Your task to perform on an android device: Open notification settings Image 0: 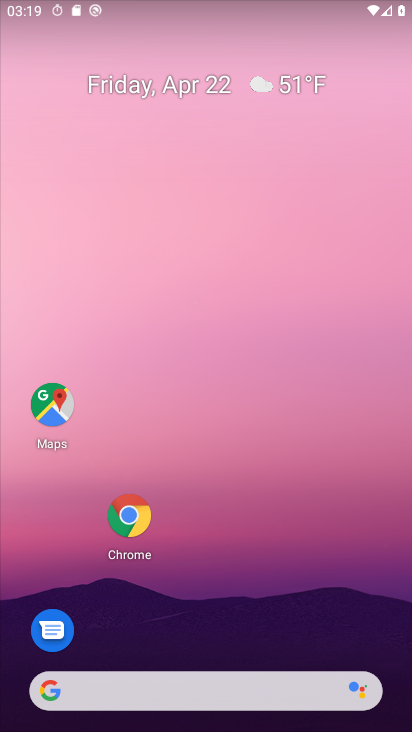
Step 0: drag from (375, 638) to (348, 314)
Your task to perform on an android device: Open notification settings Image 1: 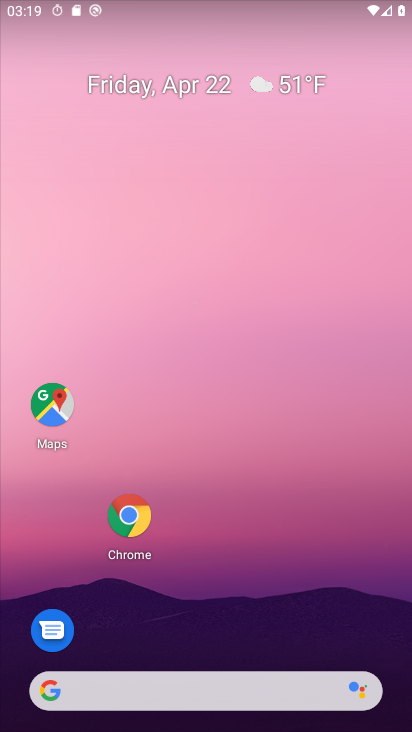
Step 1: drag from (378, 609) to (365, 94)
Your task to perform on an android device: Open notification settings Image 2: 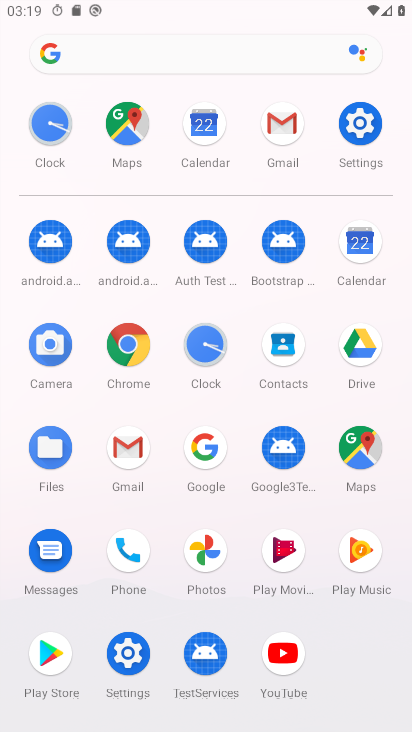
Step 2: click (359, 129)
Your task to perform on an android device: Open notification settings Image 3: 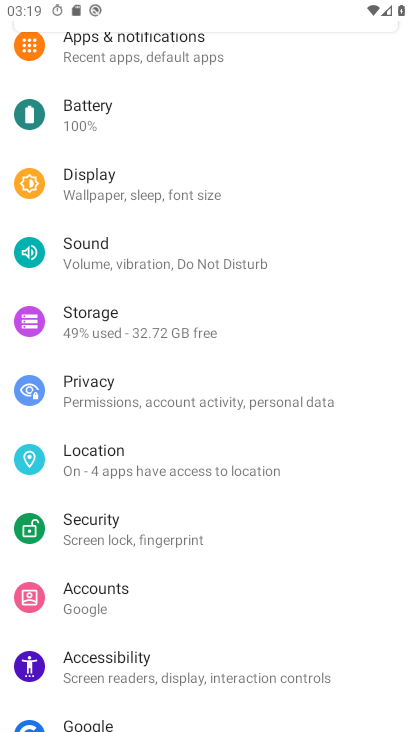
Step 3: drag from (351, 681) to (354, 285)
Your task to perform on an android device: Open notification settings Image 4: 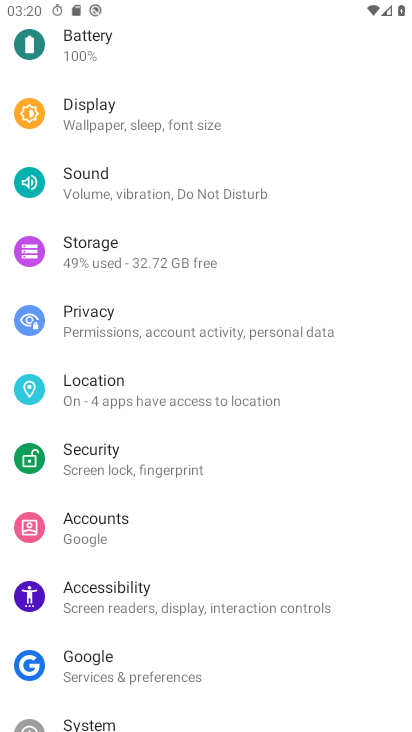
Step 4: drag from (326, 213) to (333, 407)
Your task to perform on an android device: Open notification settings Image 5: 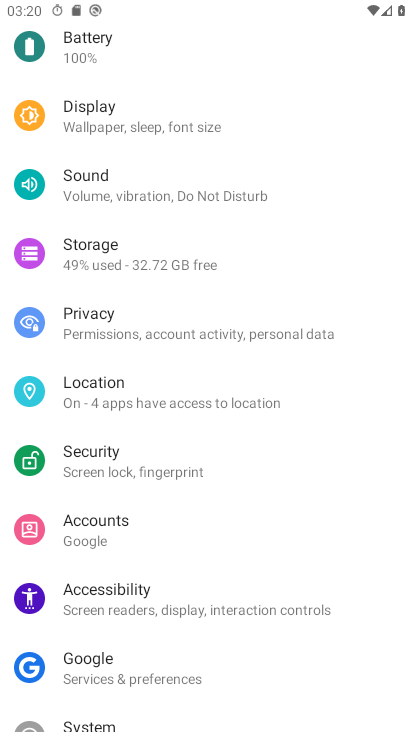
Step 5: drag from (292, 104) to (307, 512)
Your task to perform on an android device: Open notification settings Image 6: 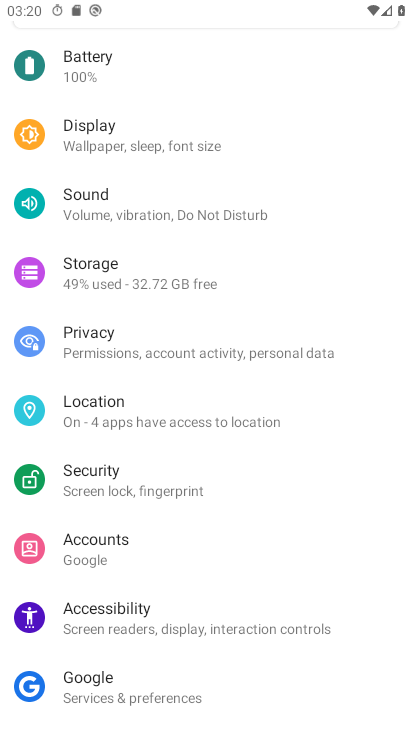
Step 6: drag from (308, 395) to (316, 537)
Your task to perform on an android device: Open notification settings Image 7: 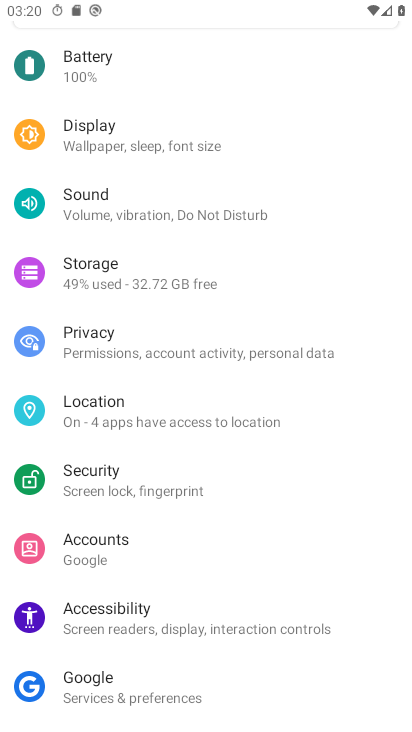
Step 7: drag from (301, 158) to (309, 487)
Your task to perform on an android device: Open notification settings Image 8: 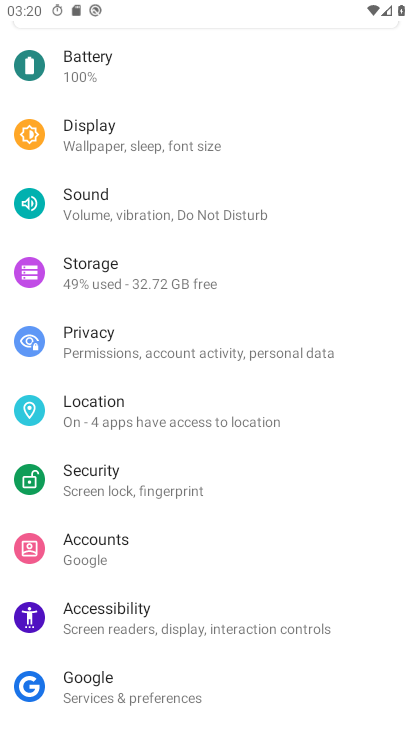
Step 8: drag from (307, 150) to (299, 562)
Your task to perform on an android device: Open notification settings Image 9: 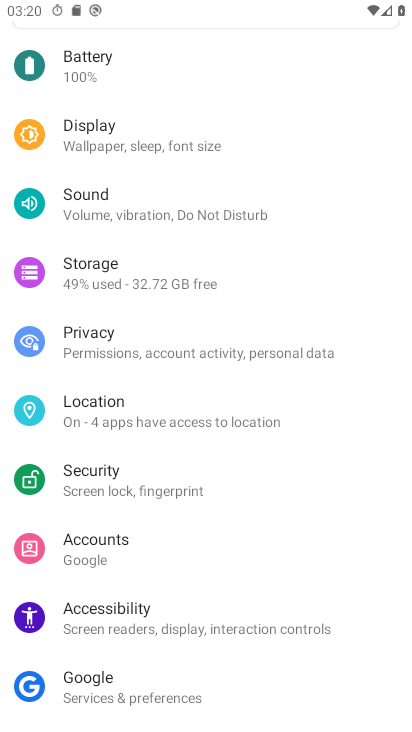
Step 9: click (343, 584)
Your task to perform on an android device: Open notification settings Image 10: 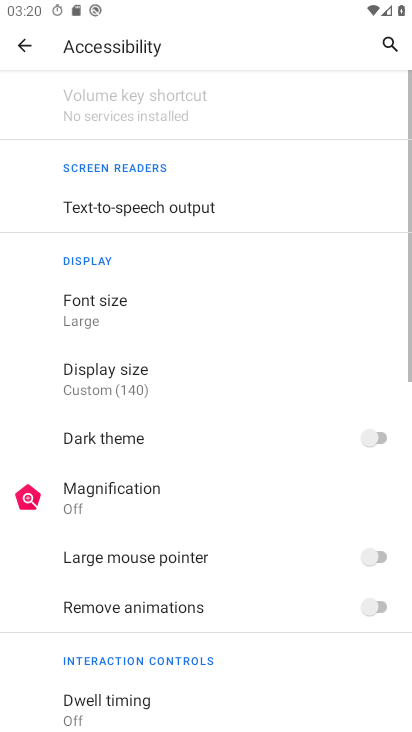
Step 10: drag from (299, 46) to (314, 335)
Your task to perform on an android device: Open notification settings Image 11: 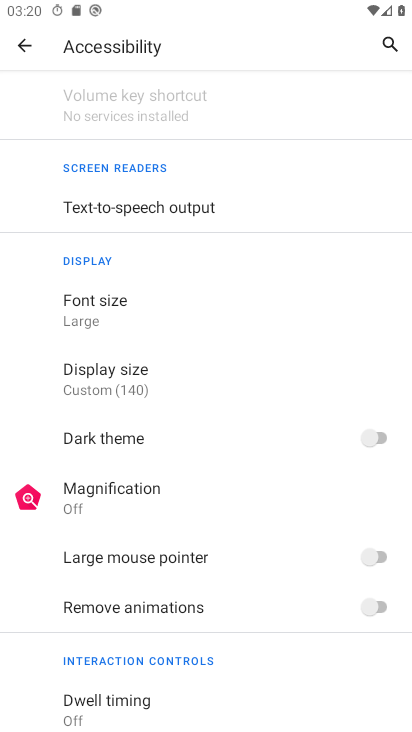
Step 11: click (14, 47)
Your task to perform on an android device: Open notification settings Image 12: 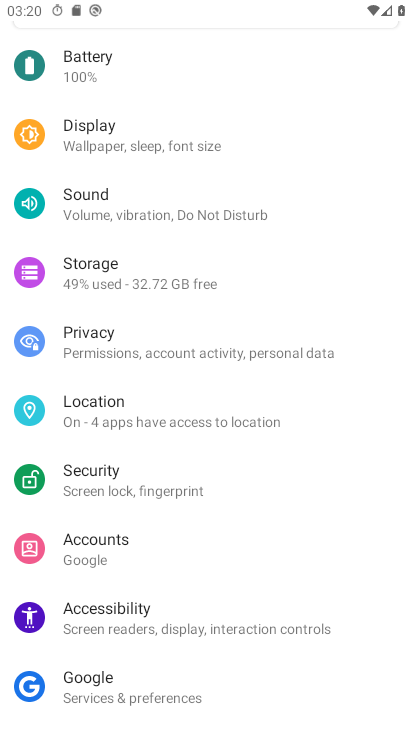
Step 12: drag from (327, 81) to (362, 465)
Your task to perform on an android device: Open notification settings Image 13: 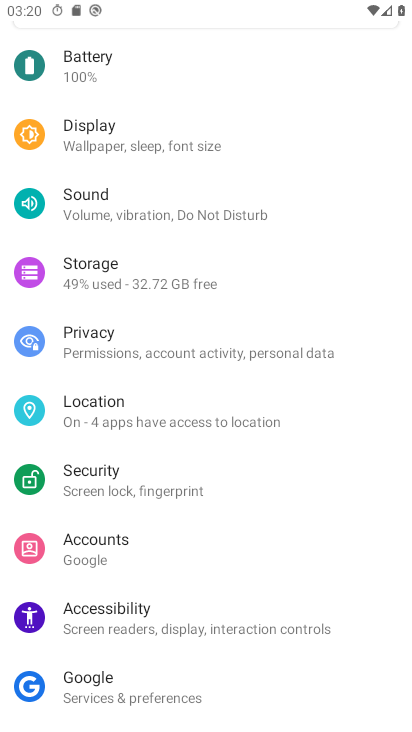
Step 13: drag from (389, 298) to (377, 558)
Your task to perform on an android device: Open notification settings Image 14: 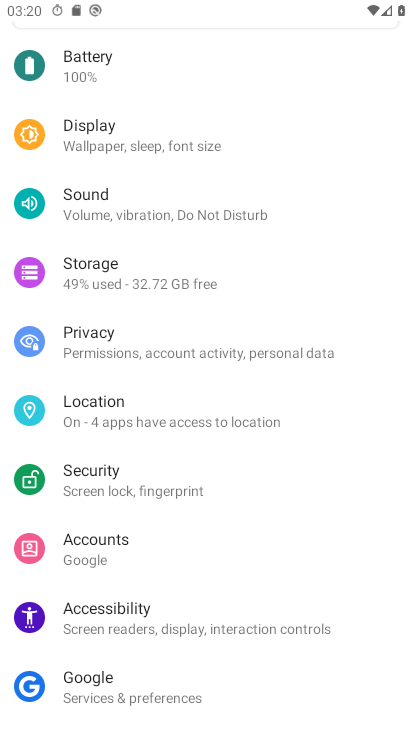
Step 14: drag from (293, 88) to (311, 205)
Your task to perform on an android device: Open notification settings Image 15: 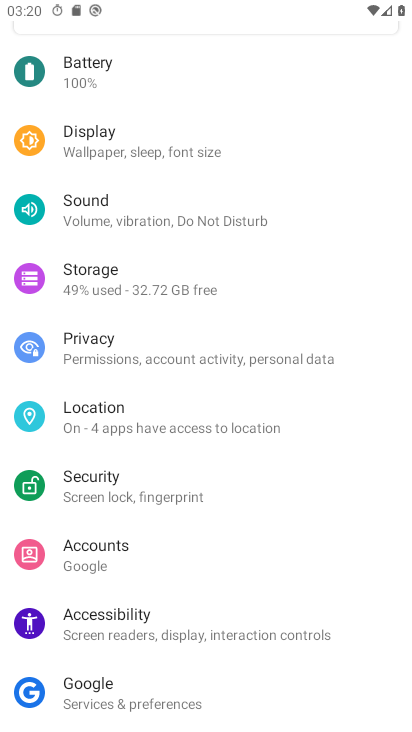
Step 15: drag from (317, 132) to (348, 497)
Your task to perform on an android device: Open notification settings Image 16: 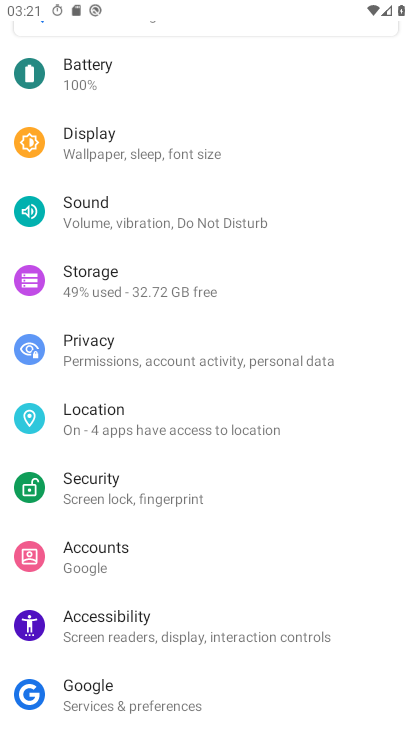
Step 16: click (250, 511)
Your task to perform on an android device: Open notification settings Image 17: 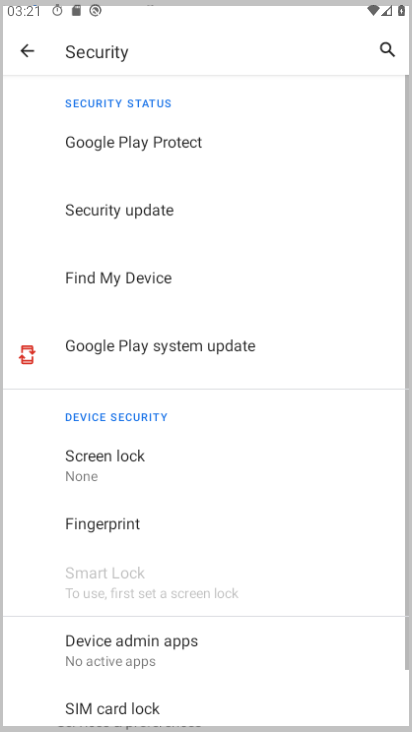
Step 17: drag from (307, 76) to (321, 474)
Your task to perform on an android device: Open notification settings Image 18: 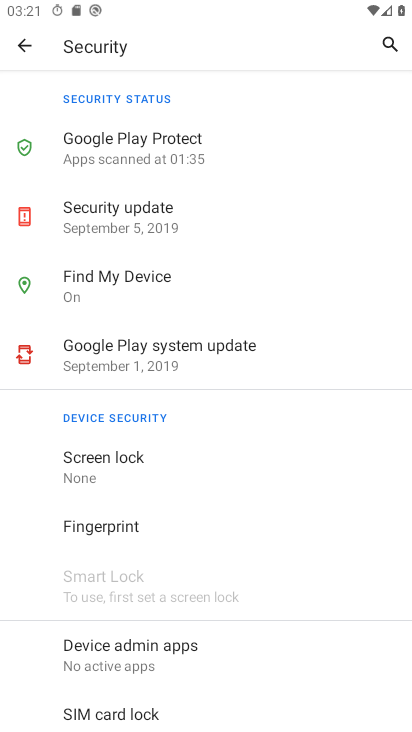
Step 18: click (17, 46)
Your task to perform on an android device: Open notification settings Image 19: 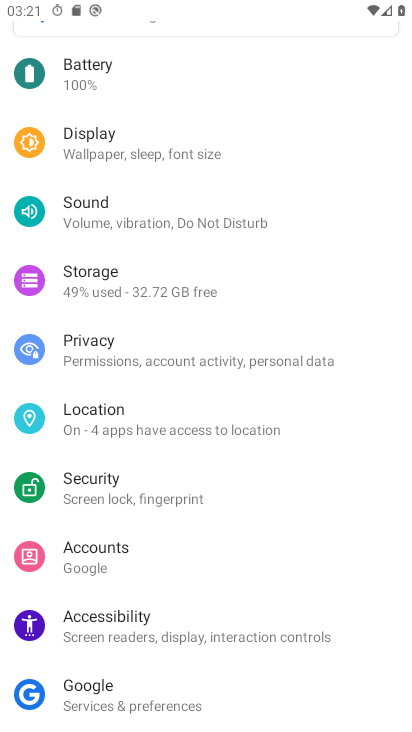
Step 19: drag from (338, 111) to (355, 384)
Your task to perform on an android device: Open notification settings Image 20: 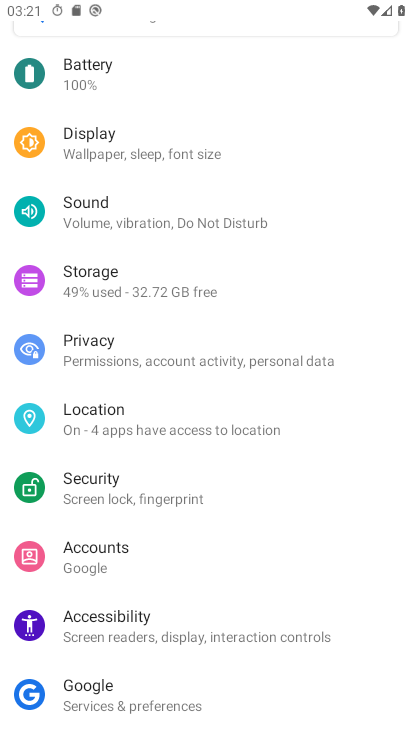
Step 20: drag from (257, 117) to (290, 554)
Your task to perform on an android device: Open notification settings Image 21: 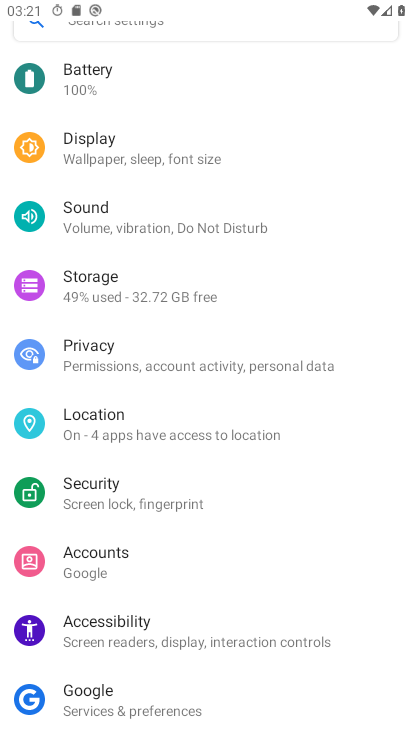
Step 21: drag from (313, 101) to (358, 615)
Your task to perform on an android device: Open notification settings Image 22: 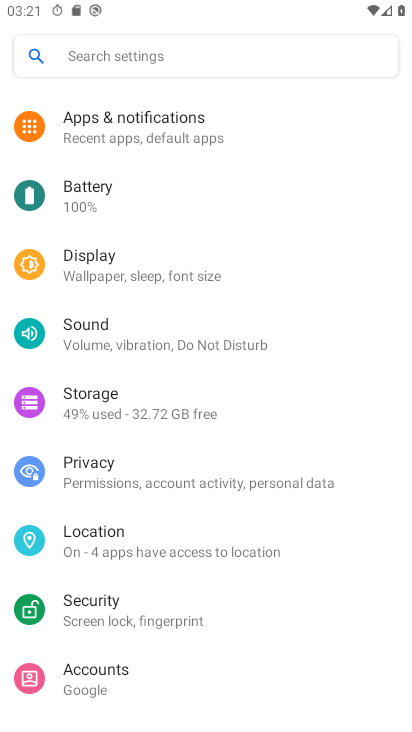
Step 22: click (147, 124)
Your task to perform on an android device: Open notification settings Image 23: 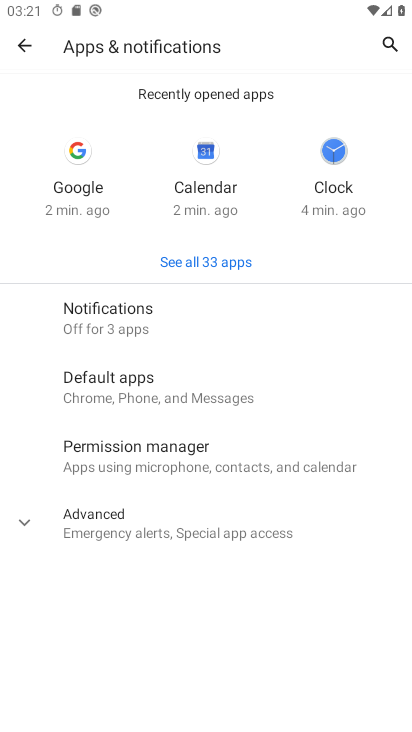
Step 23: click (92, 309)
Your task to perform on an android device: Open notification settings Image 24: 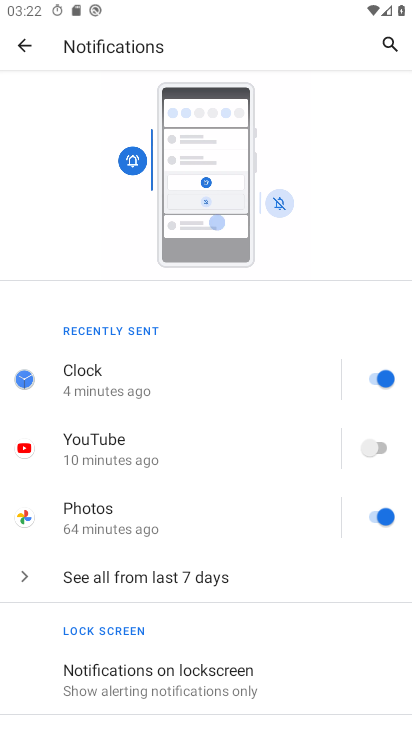
Step 24: task complete